Your task to perform on an android device: turn off priority inbox in the gmail app Image 0: 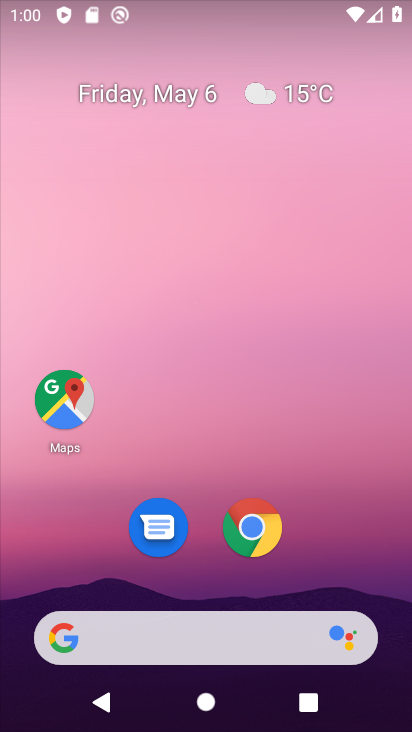
Step 0: drag from (221, 564) to (266, 96)
Your task to perform on an android device: turn off priority inbox in the gmail app Image 1: 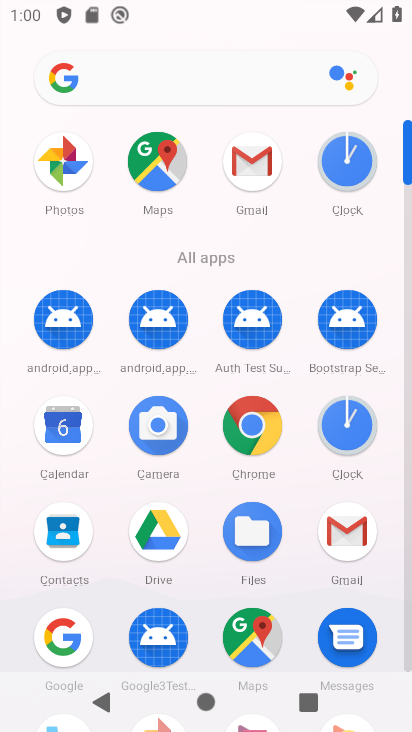
Step 1: click (253, 145)
Your task to perform on an android device: turn off priority inbox in the gmail app Image 2: 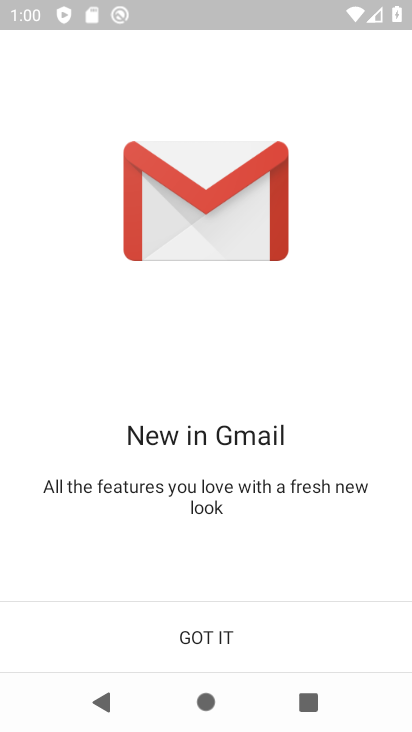
Step 2: click (194, 630)
Your task to perform on an android device: turn off priority inbox in the gmail app Image 3: 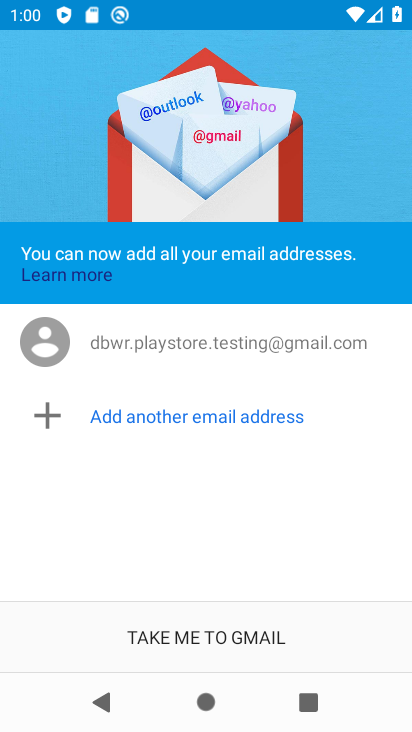
Step 3: click (194, 630)
Your task to perform on an android device: turn off priority inbox in the gmail app Image 4: 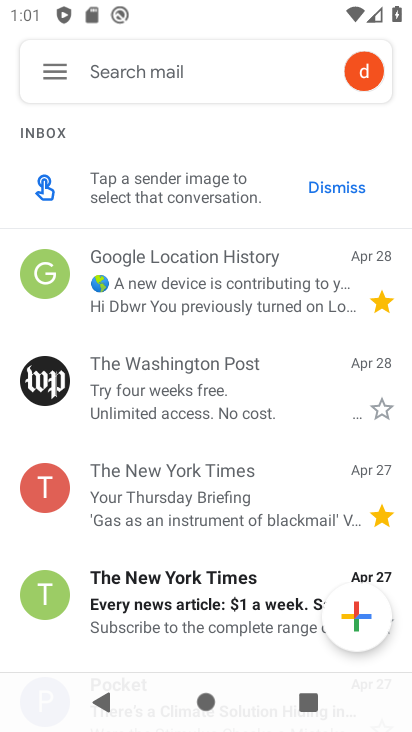
Step 4: click (55, 61)
Your task to perform on an android device: turn off priority inbox in the gmail app Image 5: 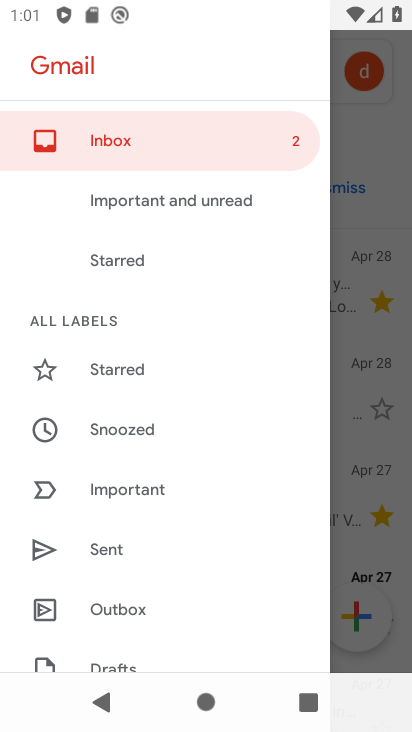
Step 5: drag from (96, 646) to (204, 178)
Your task to perform on an android device: turn off priority inbox in the gmail app Image 6: 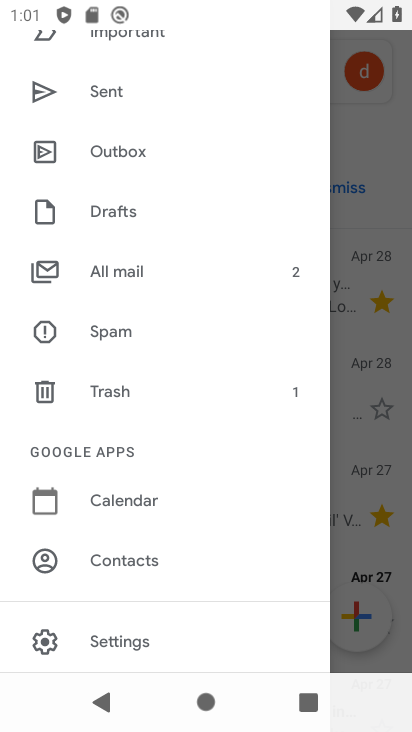
Step 6: click (89, 657)
Your task to perform on an android device: turn off priority inbox in the gmail app Image 7: 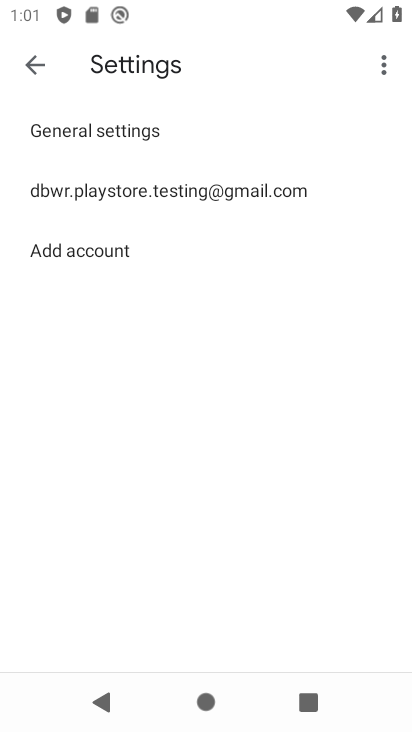
Step 7: click (282, 194)
Your task to perform on an android device: turn off priority inbox in the gmail app Image 8: 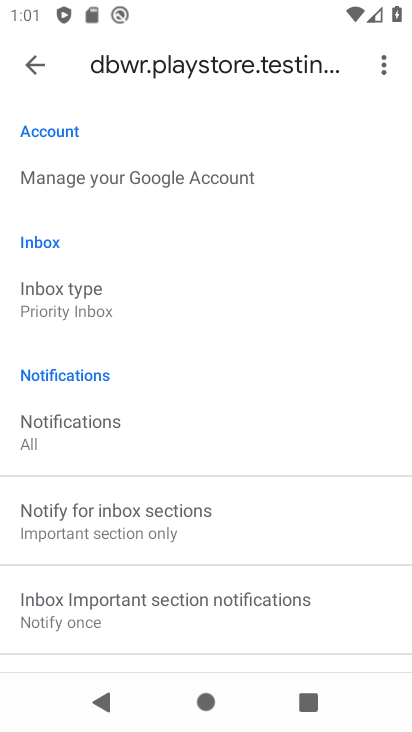
Step 8: click (167, 294)
Your task to perform on an android device: turn off priority inbox in the gmail app Image 9: 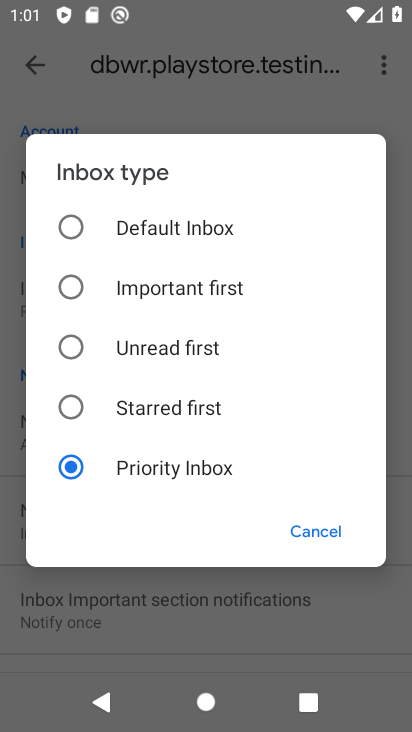
Step 9: click (151, 252)
Your task to perform on an android device: turn off priority inbox in the gmail app Image 10: 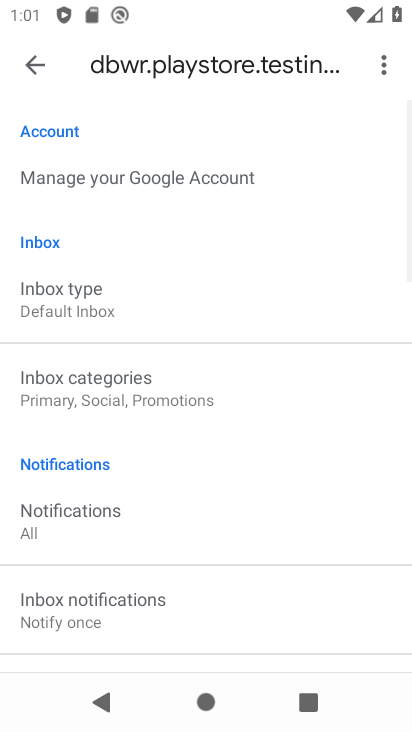
Step 10: task complete